Your task to perform on an android device: turn notification dots on Image 0: 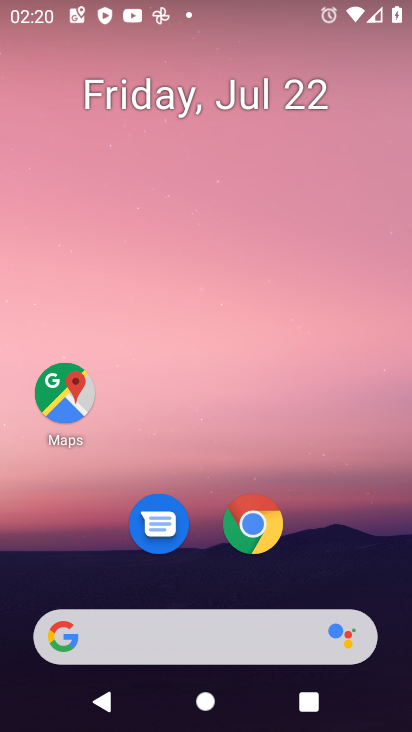
Step 0: press home button
Your task to perform on an android device: turn notification dots on Image 1: 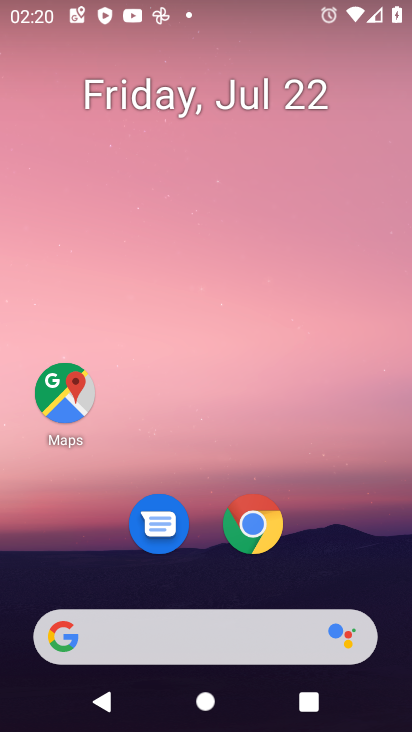
Step 1: drag from (205, 638) to (336, 65)
Your task to perform on an android device: turn notification dots on Image 2: 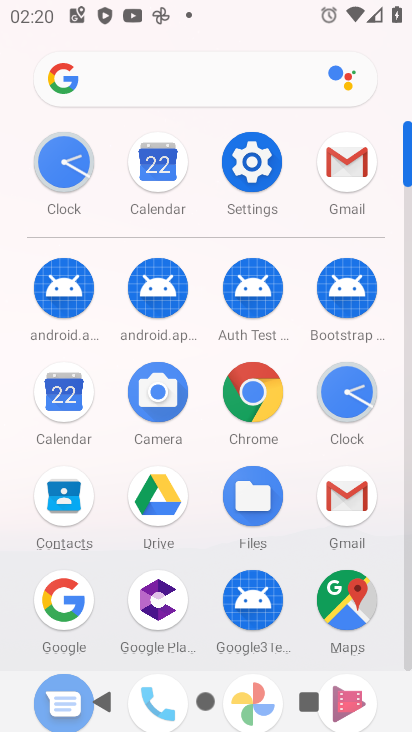
Step 2: click (253, 160)
Your task to perform on an android device: turn notification dots on Image 3: 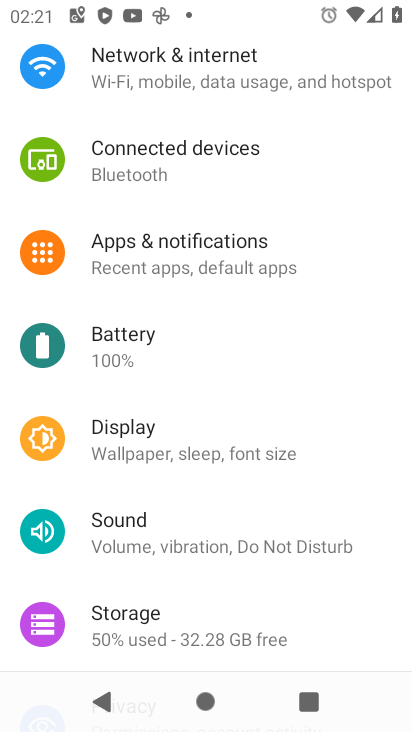
Step 3: click (217, 251)
Your task to perform on an android device: turn notification dots on Image 4: 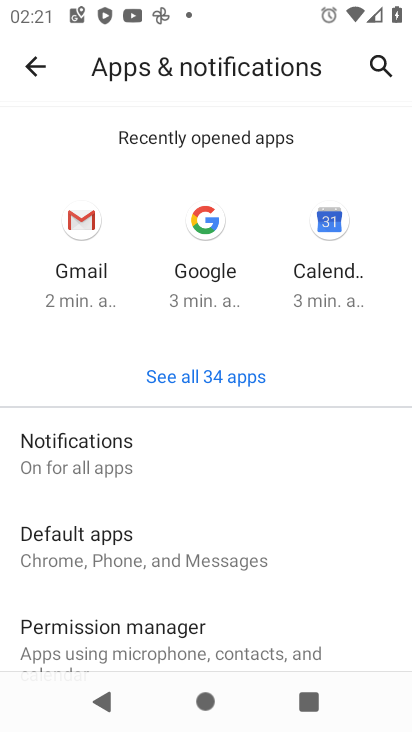
Step 4: click (98, 467)
Your task to perform on an android device: turn notification dots on Image 5: 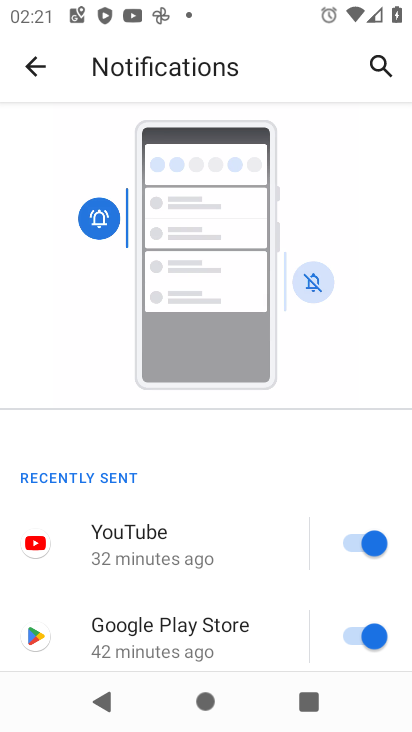
Step 5: drag from (114, 618) to (264, 172)
Your task to perform on an android device: turn notification dots on Image 6: 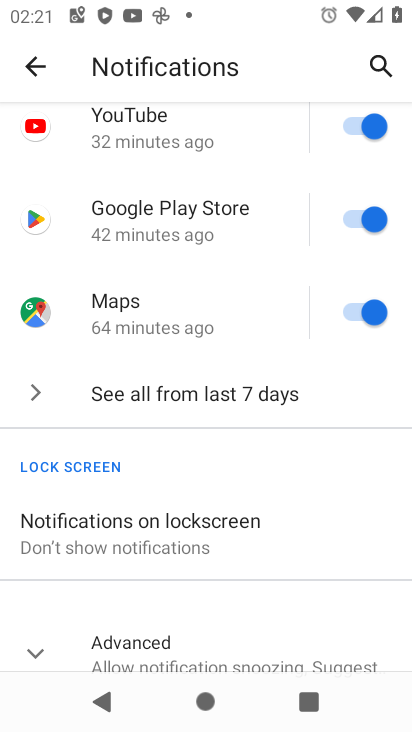
Step 6: drag from (189, 602) to (327, 88)
Your task to perform on an android device: turn notification dots on Image 7: 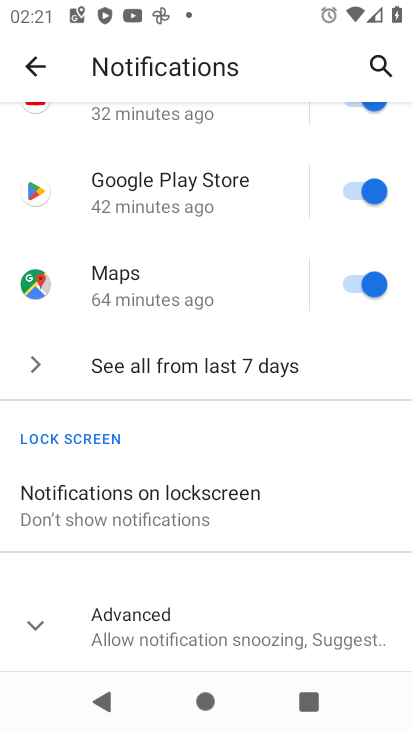
Step 7: drag from (199, 622) to (315, 211)
Your task to perform on an android device: turn notification dots on Image 8: 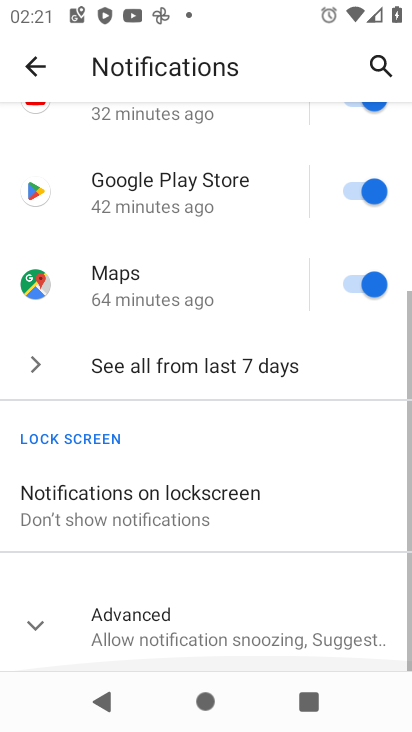
Step 8: click (143, 632)
Your task to perform on an android device: turn notification dots on Image 9: 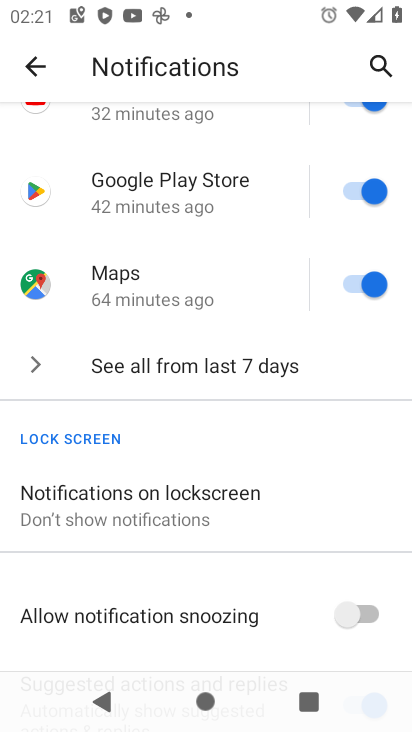
Step 9: drag from (169, 602) to (329, 155)
Your task to perform on an android device: turn notification dots on Image 10: 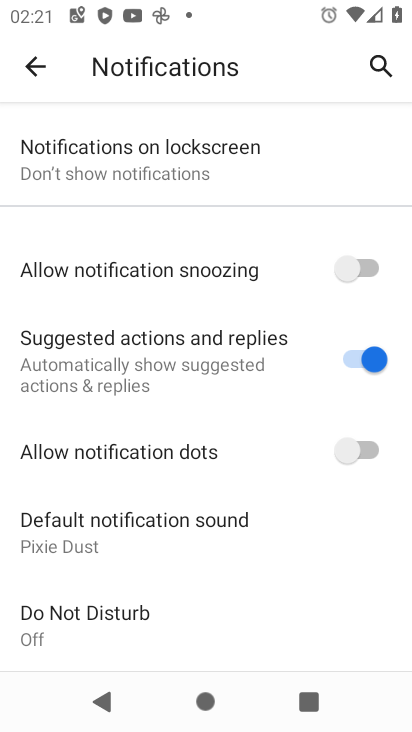
Step 10: click (369, 446)
Your task to perform on an android device: turn notification dots on Image 11: 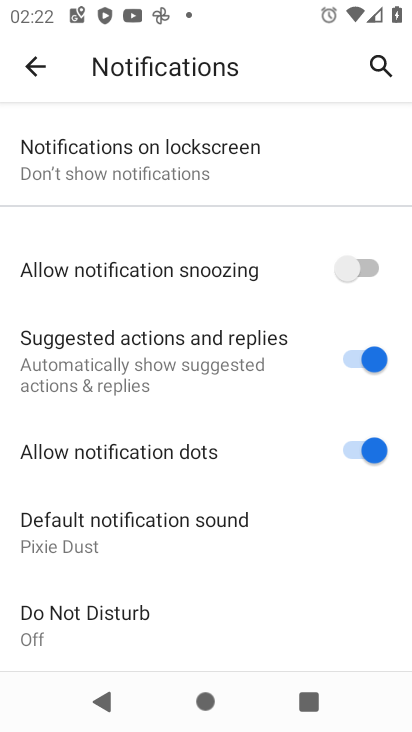
Step 11: task complete